Your task to perform on an android device: move a message to another label in the gmail app Image 0: 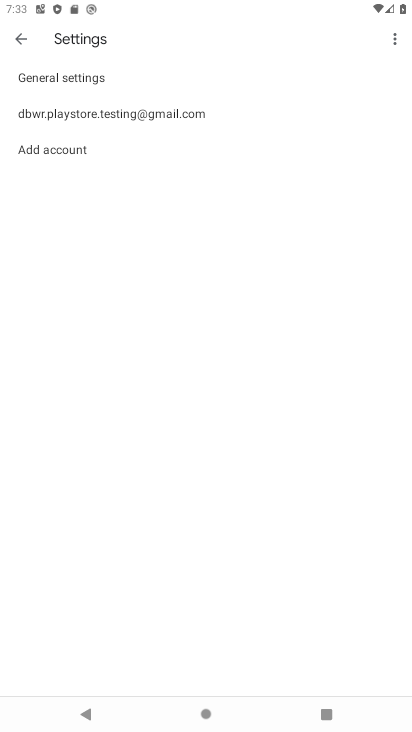
Step 0: click (30, 40)
Your task to perform on an android device: move a message to another label in the gmail app Image 1: 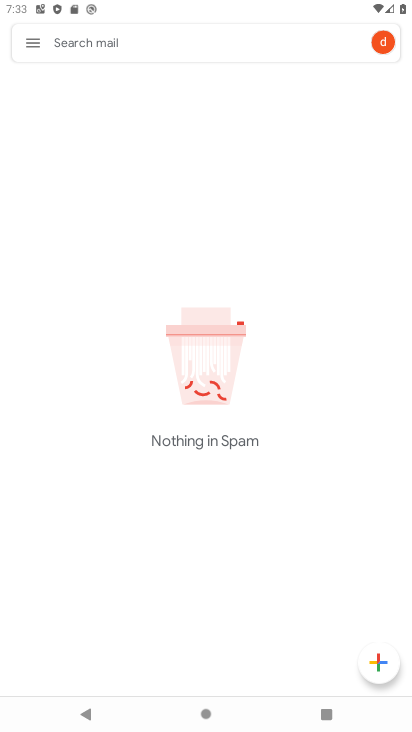
Step 1: click (29, 40)
Your task to perform on an android device: move a message to another label in the gmail app Image 2: 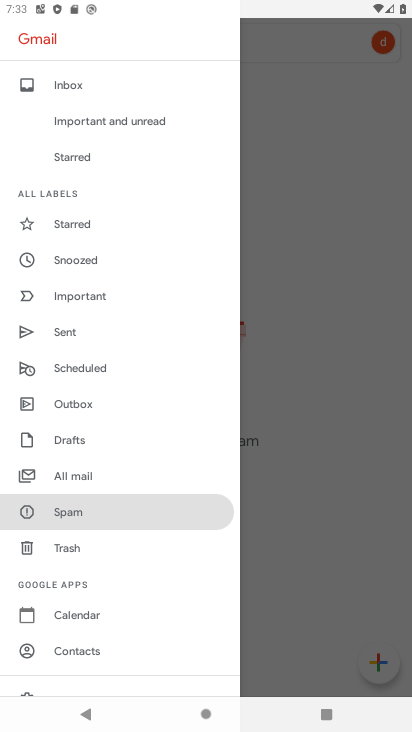
Step 2: click (64, 481)
Your task to perform on an android device: move a message to another label in the gmail app Image 3: 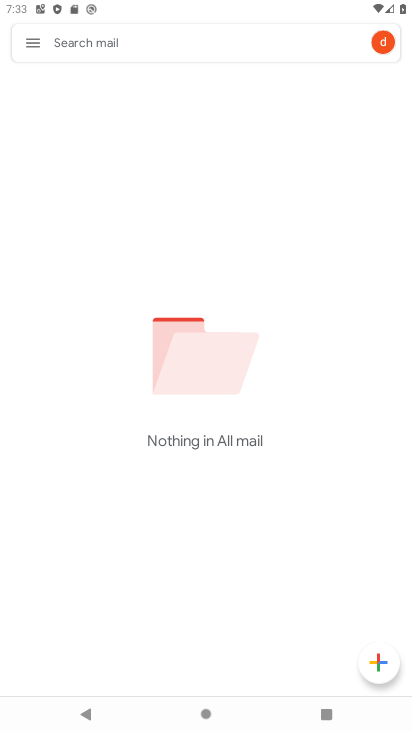
Step 3: task complete